Your task to perform on an android device: see creations saved in the google photos Image 0: 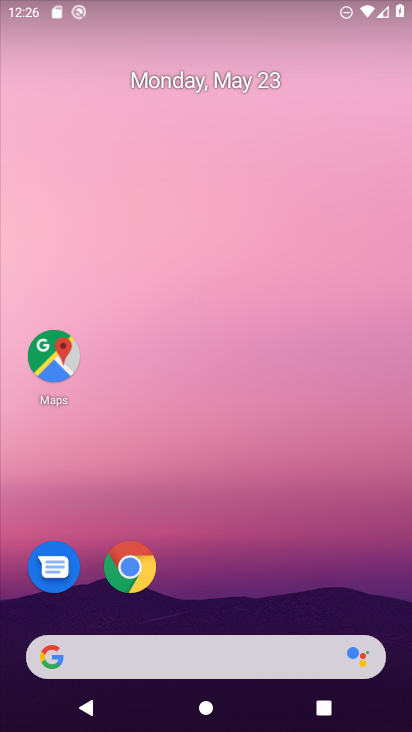
Step 0: drag from (188, 597) to (266, 144)
Your task to perform on an android device: see creations saved in the google photos Image 1: 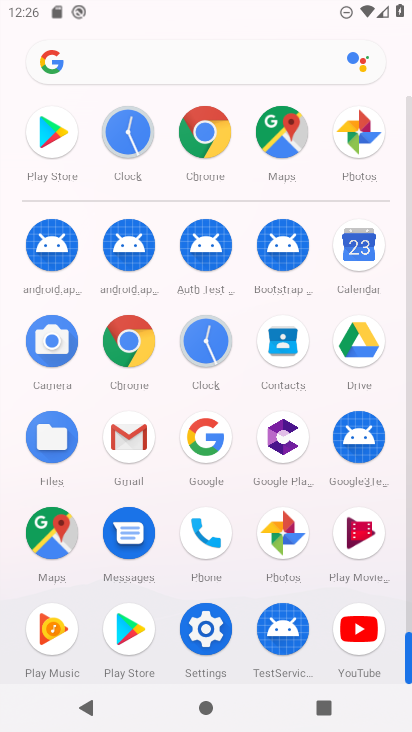
Step 1: click (350, 143)
Your task to perform on an android device: see creations saved in the google photos Image 2: 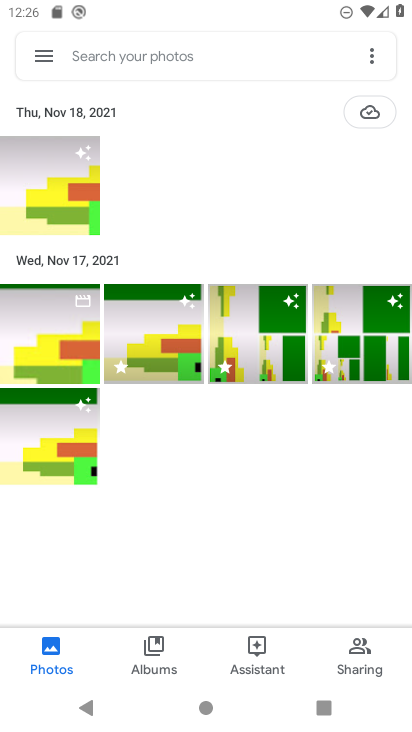
Step 2: click (161, 636)
Your task to perform on an android device: see creations saved in the google photos Image 3: 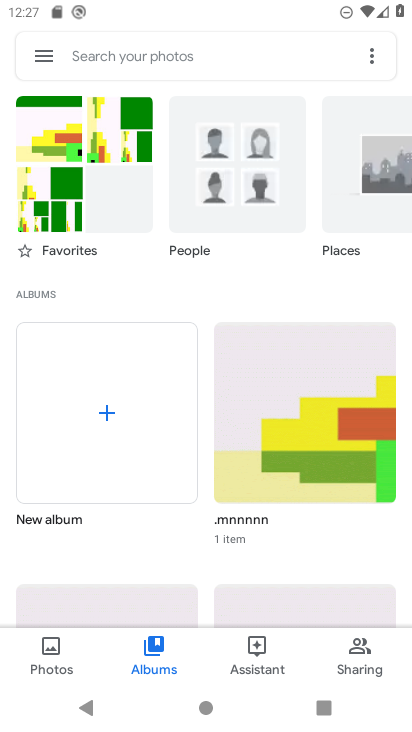
Step 3: task complete